Your task to perform on an android device: Go to location settings Image 0: 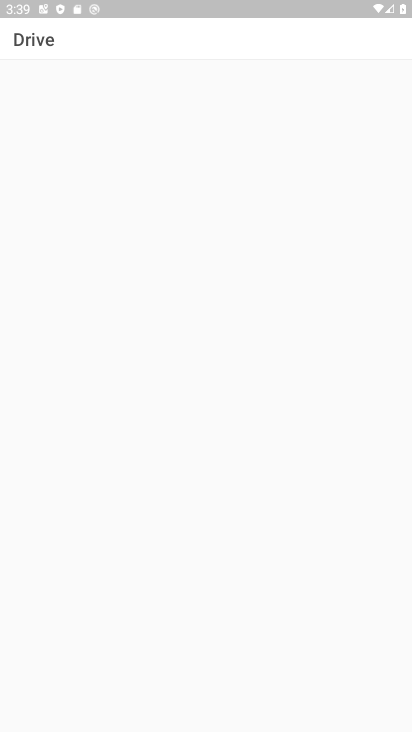
Step 0: drag from (225, 609) to (278, 69)
Your task to perform on an android device: Go to location settings Image 1: 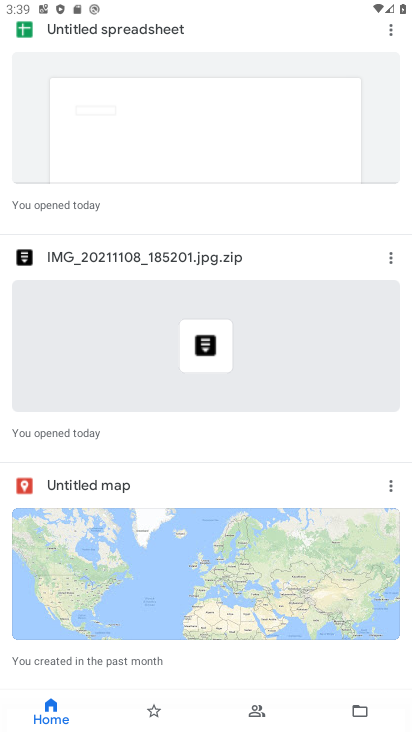
Step 1: press home button
Your task to perform on an android device: Go to location settings Image 2: 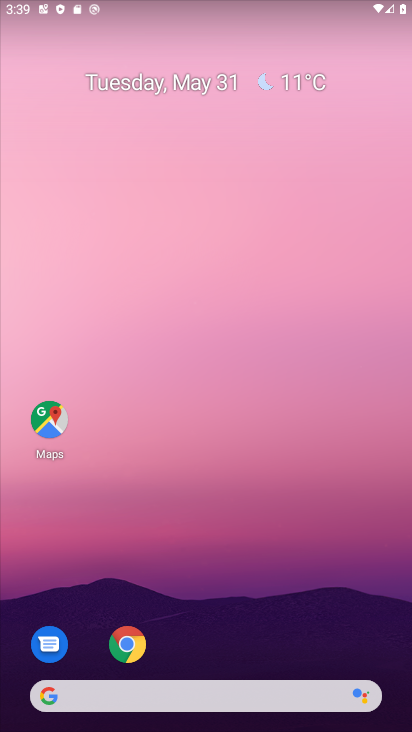
Step 2: drag from (253, 527) to (299, 12)
Your task to perform on an android device: Go to location settings Image 3: 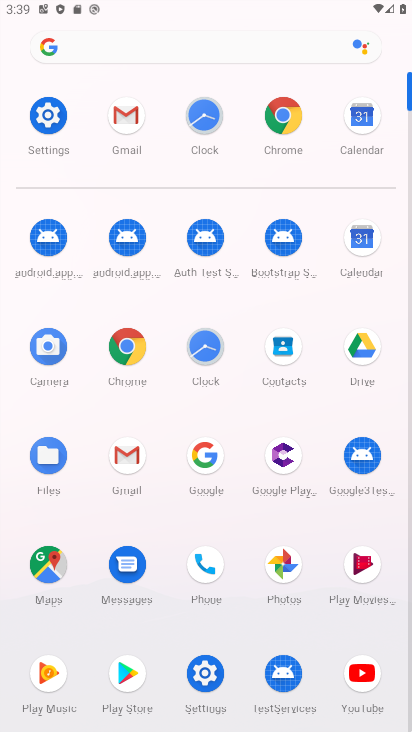
Step 3: click (57, 108)
Your task to perform on an android device: Go to location settings Image 4: 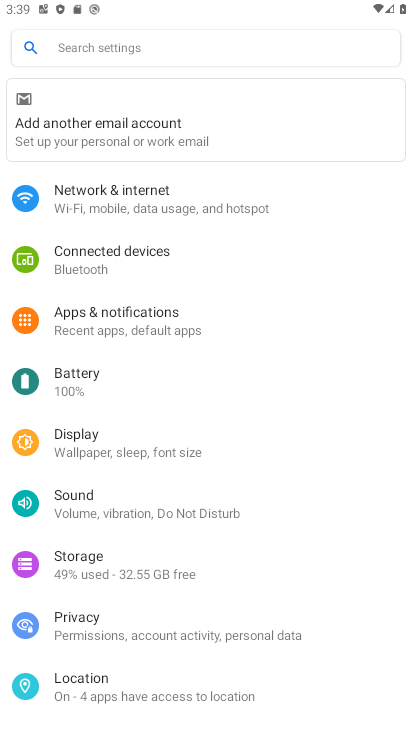
Step 4: click (130, 671)
Your task to perform on an android device: Go to location settings Image 5: 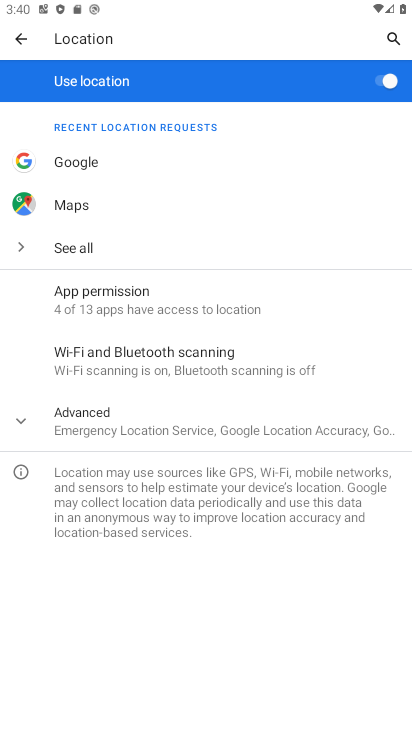
Step 5: task complete